Your task to perform on an android device: Open Amazon Image 0: 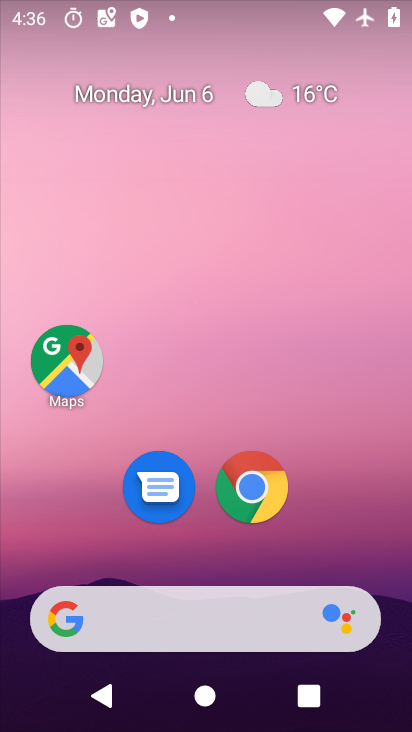
Step 0: drag from (329, 266) to (313, 106)
Your task to perform on an android device: Open Amazon Image 1: 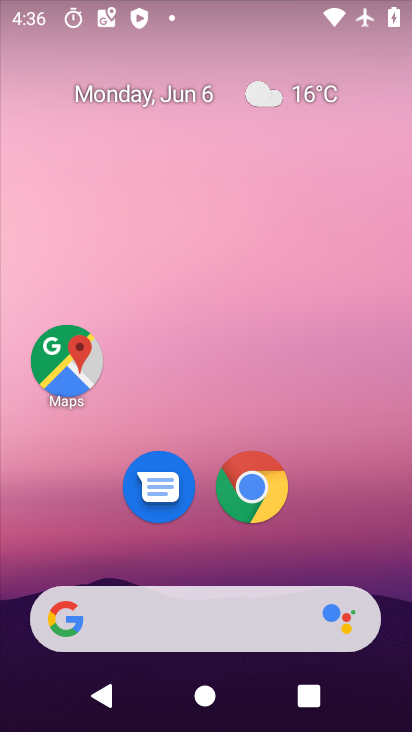
Step 1: click (251, 492)
Your task to perform on an android device: Open Amazon Image 2: 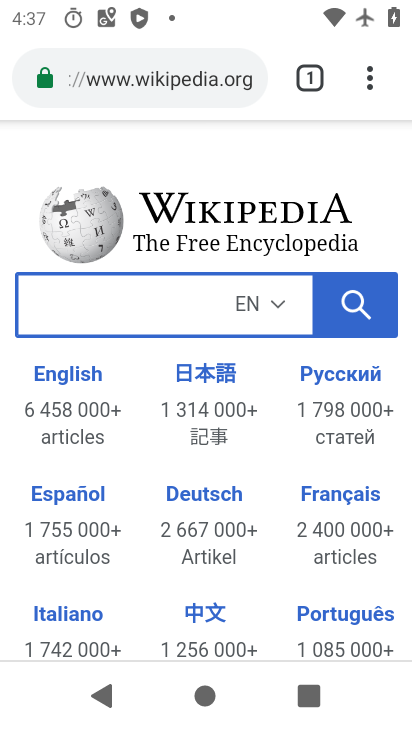
Step 2: click (216, 77)
Your task to perform on an android device: Open Amazon Image 3: 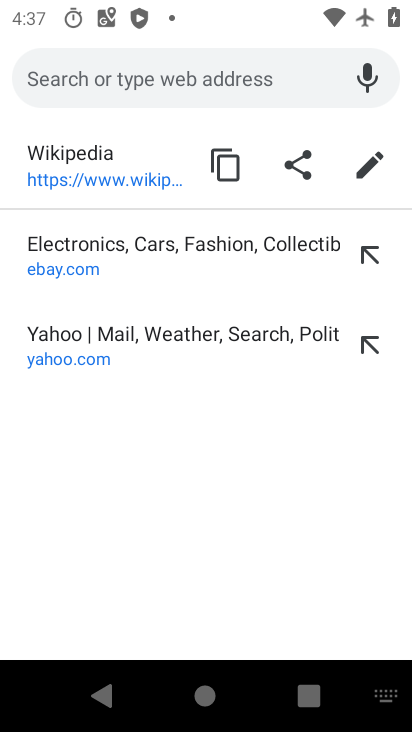
Step 3: type "amazone"
Your task to perform on an android device: Open Amazon Image 4: 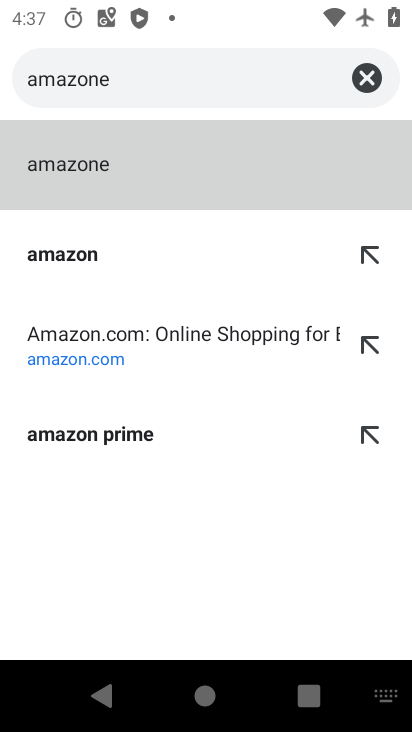
Step 4: click (54, 358)
Your task to perform on an android device: Open Amazon Image 5: 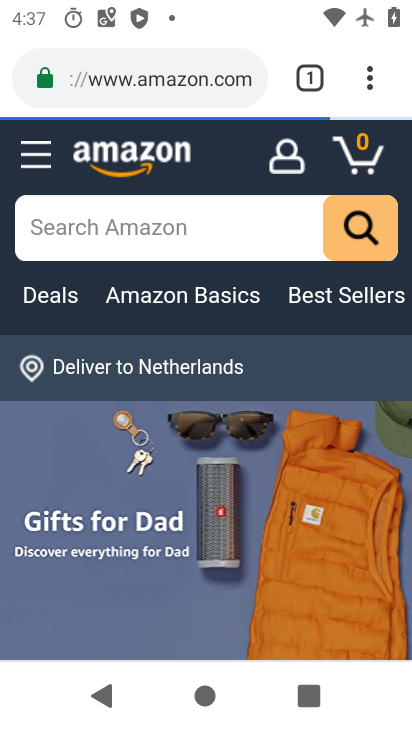
Step 5: task complete